Your task to perform on an android device: Open the Play Movies app and select the watchlist tab. Image 0: 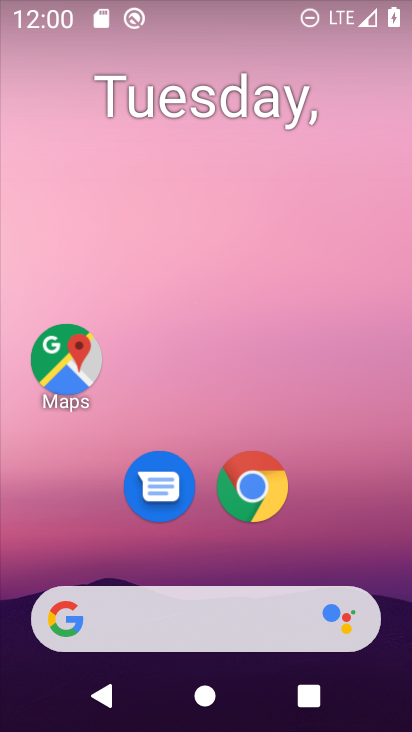
Step 0: drag from (61, 612) to (318, 203)
Your task to perform on an android device: Open the Play Movies app and select the watchlist tab. Image 1: 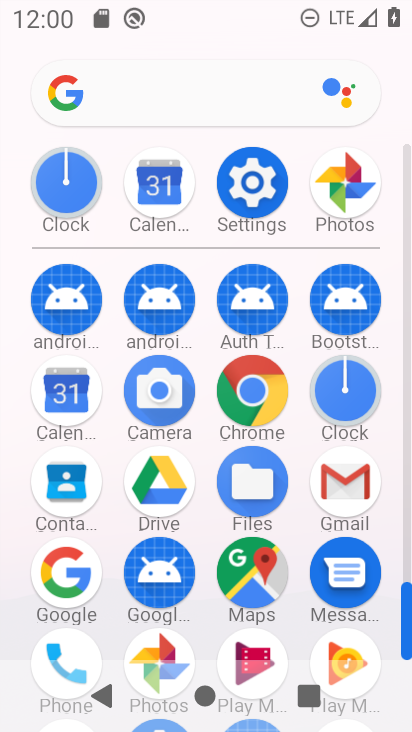
Step 1: click (251, 648)
Your task to perform on an android device: Open the Play Movies app and select the watchlist tab. Image 2: 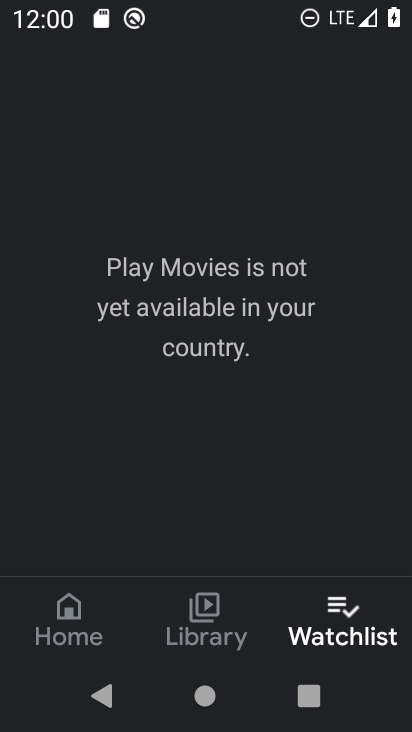
Step 2: click (337, 623)
Your task to perform on an android device: Open the Play Movies app and select the watchlist tab. Image 3: 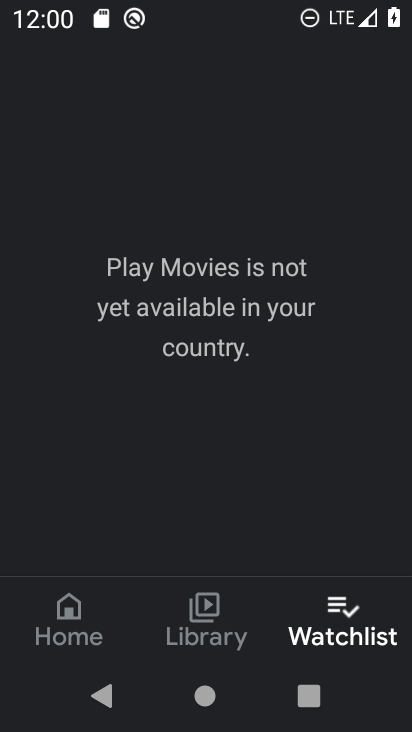
Step 3: task complete